Your task to perform on an android device: empty trash in google photos Image 0: 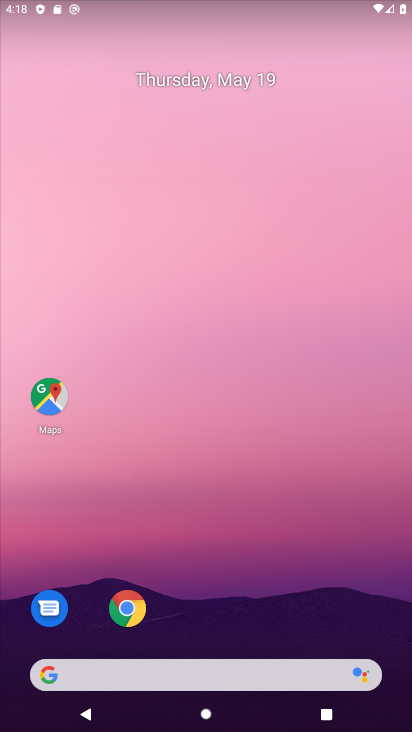
Step 0: drag from (190, 607) to (208, 43)
Your task to perform on an android device: empty trash in google photos Image 1: 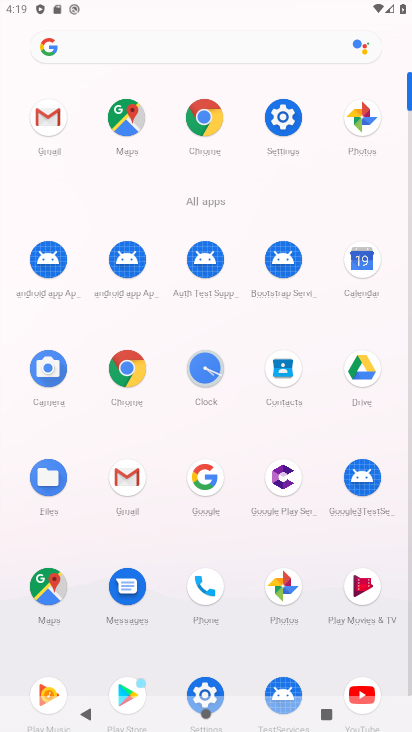
Step 1: click (281, 592)
Your task to perform on an android device: empty trash in google photos Image 2: 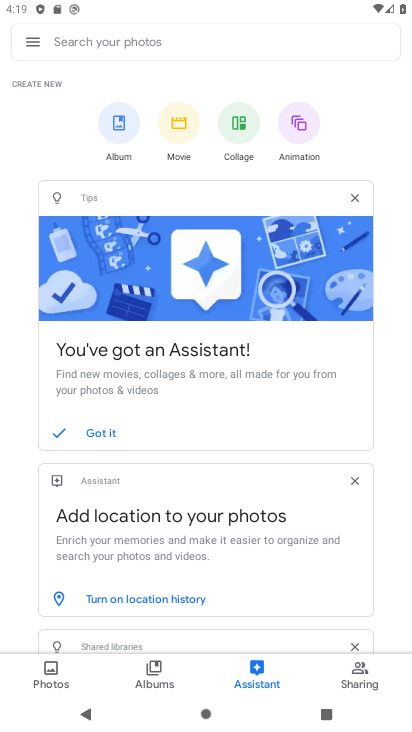
Step 2: click (32, 38)
Your task to perform on an android device: empty trash in google photos Image 3: 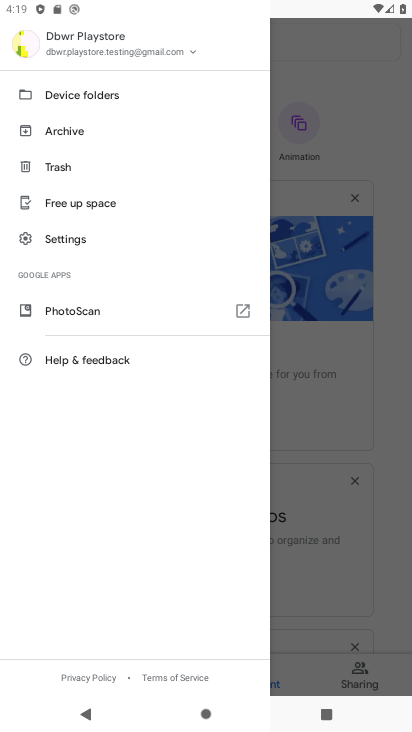
Step 3: click (51, 167)
Your task to perform on an android device: empty trash in google photos Image 4: 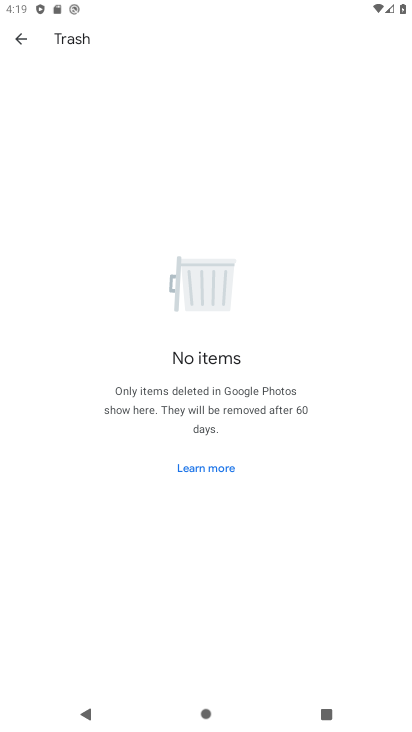
Step 4: task complete